Your task to perform on an android device: Search for usb-c to usb-b on costco, select the first entry, and add it to the cart. Image 0: 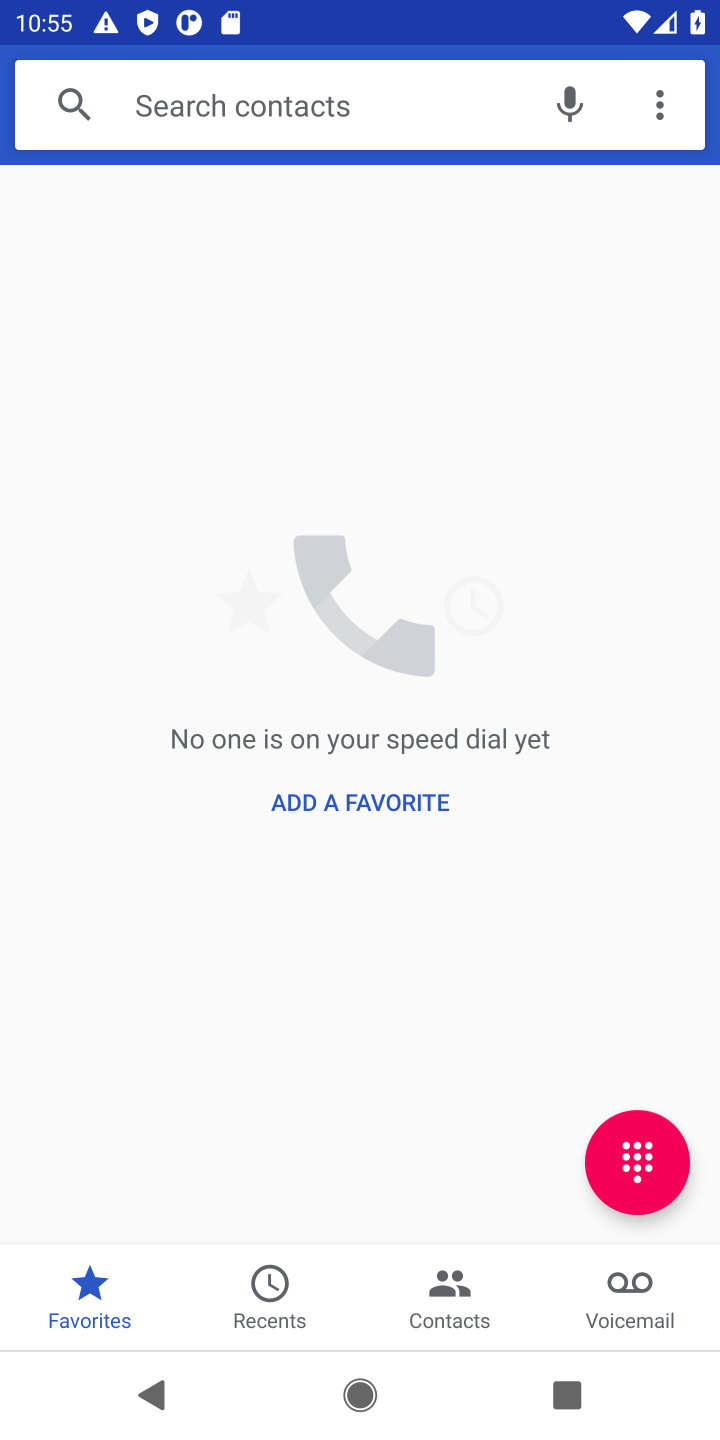
Step 0: press home button
Your task to perform on an android device: Search for usb-c to usb-b on costco, select the first entry, and add it to the cart. Image 1: 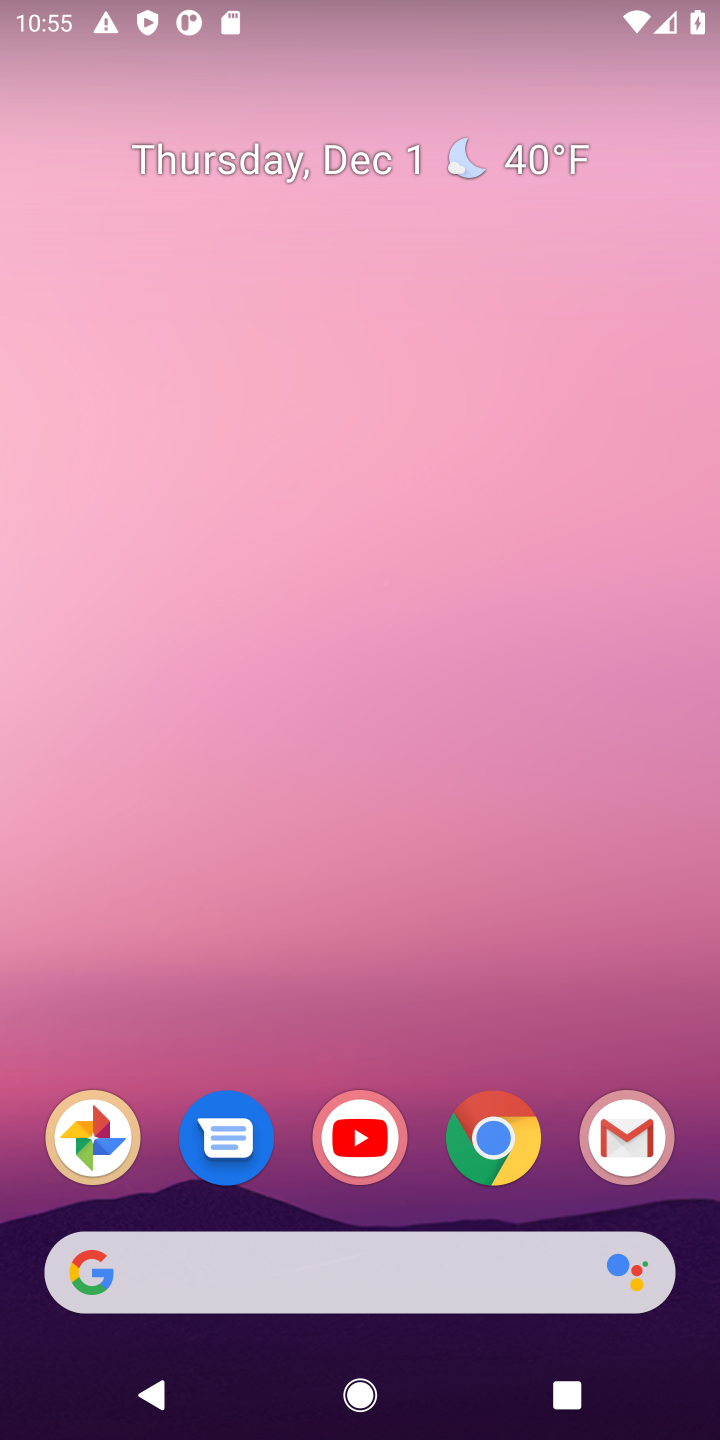
Step 1: drag from (373, 1118) to (504, 696)
Your task to perform on an android device: Search for usb-c to usb-b on costco, select the first entry, and add it to the cart. Image 2: 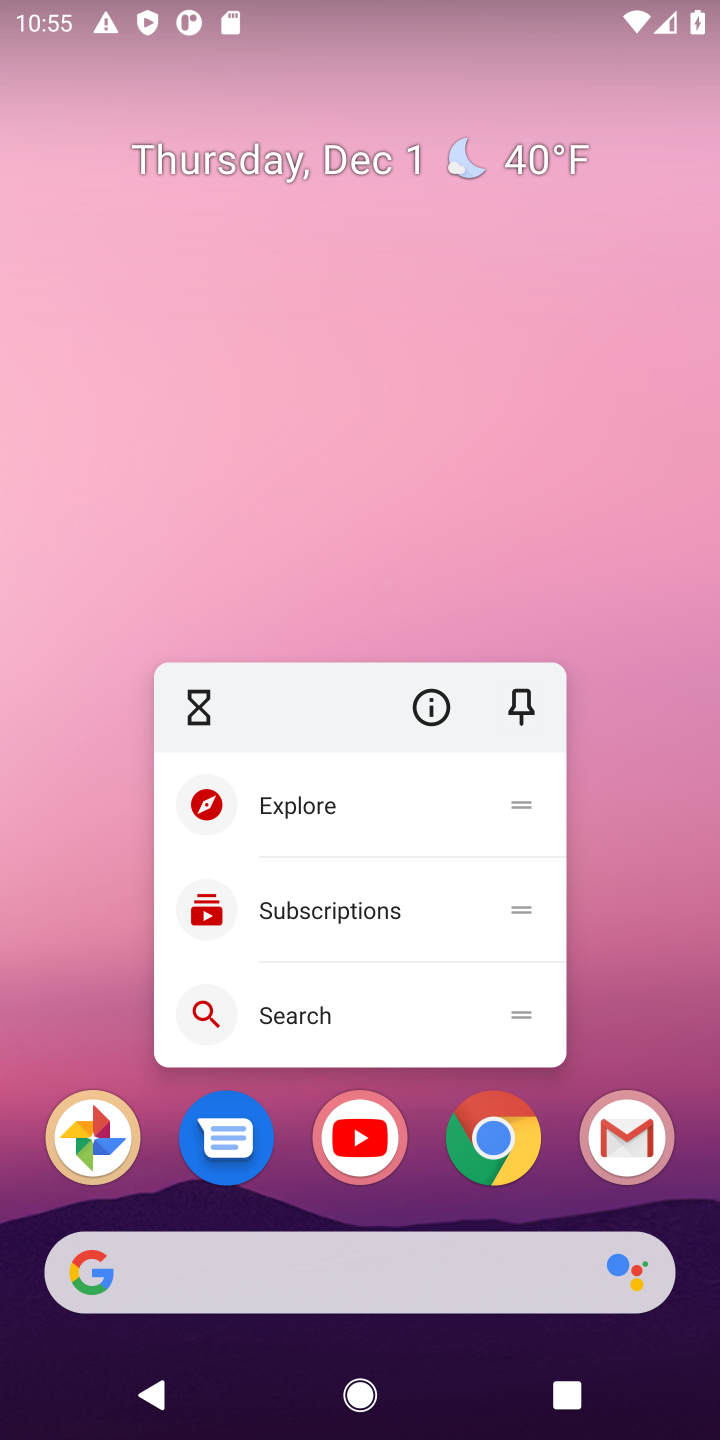
Step 2: click (662, 843)
Your task to perform on an android device: Search for usb-c to usb-b on costco, select the first entry, and add it to the cart. Image 3: 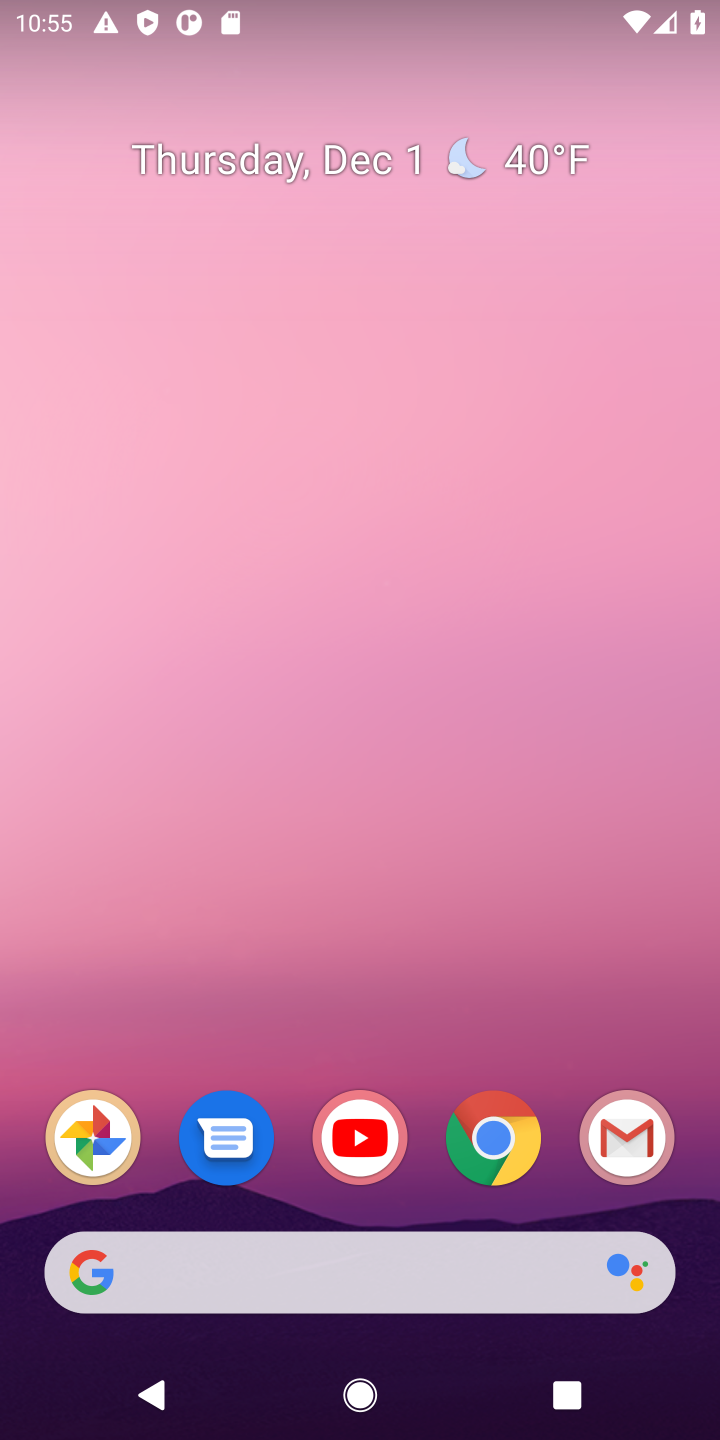
Step 3: drag from (465, 1243) to (703, 87)
Your task to perform on an android device: Search for usb-c to usb-b on costco, select the first entry, and add it to the cart. Image 4: 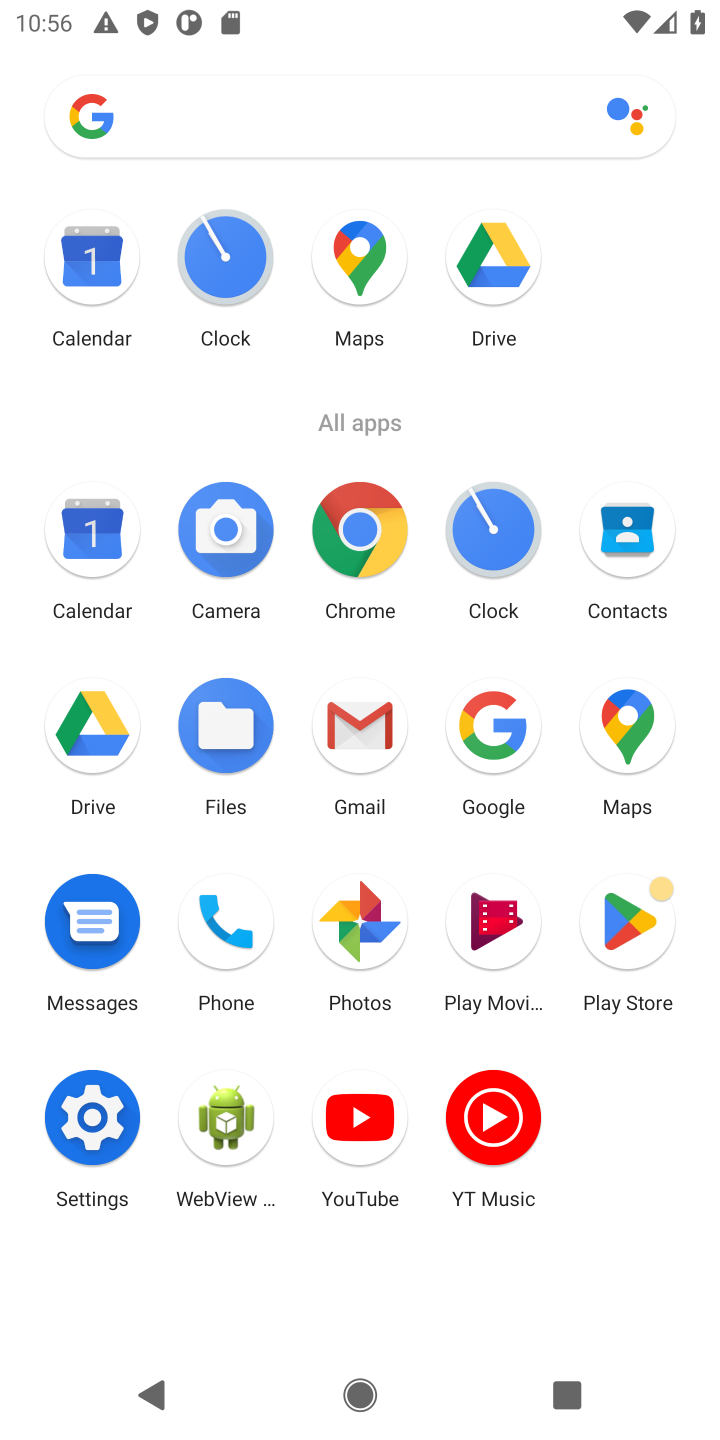
Step 4: click (489, 736)
Your task to perform on an android device: Search for usb-c to usb-b on costco, select the first entry, and add it to the cart. Image 5: 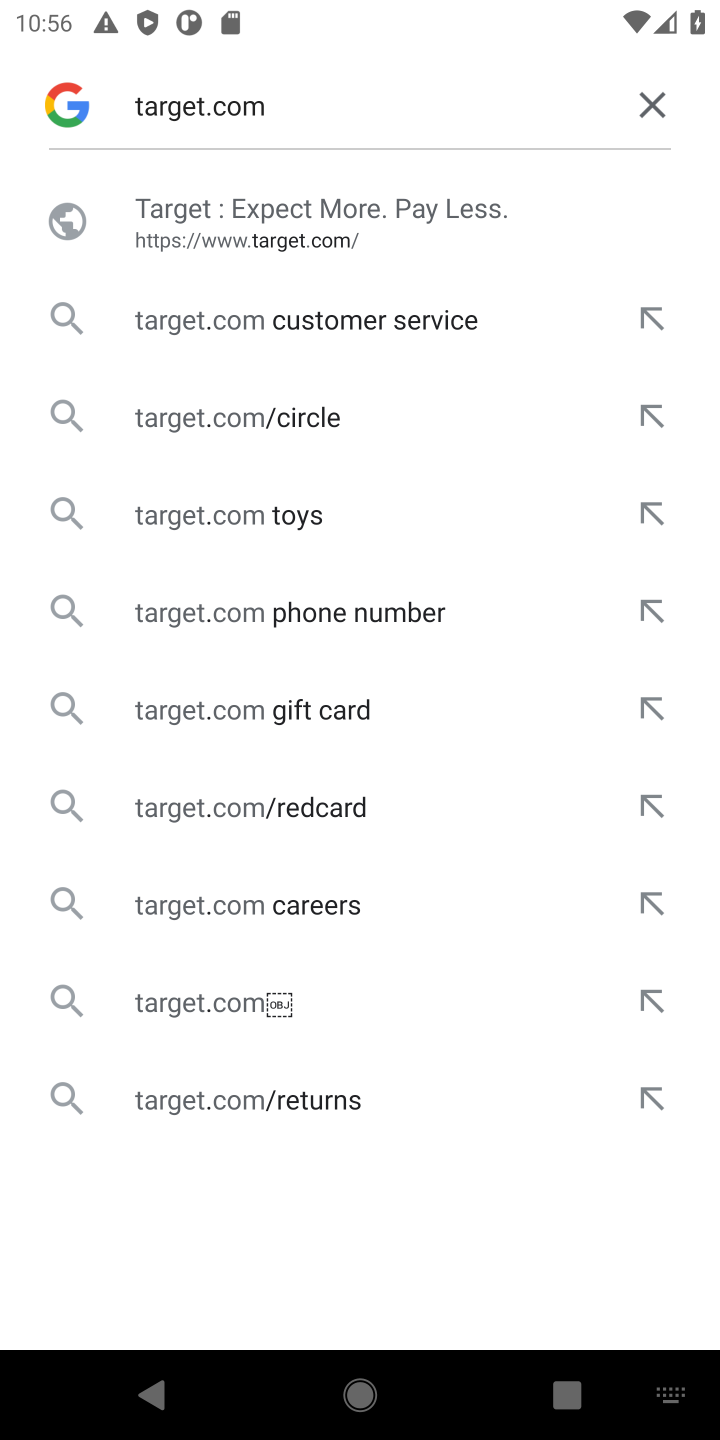
Step 5: click (436, 204)
Your task to perform on an android device: Search for usb-c to usb-b on costco, select the first entry, and add it to the cart. Image 6: 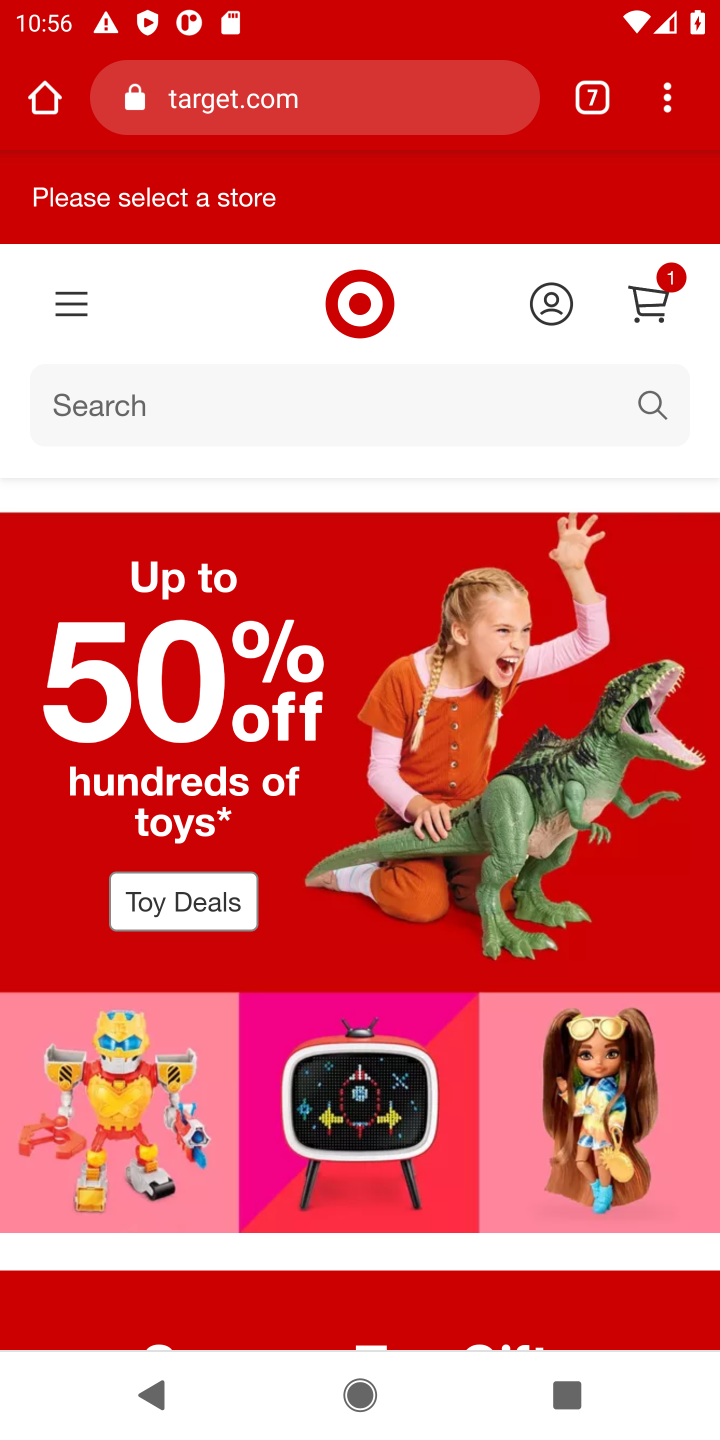
Step 6: click (433, 424)
Your task to perform on an android device: Search for usb-c to usb-b on costco, select the first entry, and add it to the cart. Image 7: 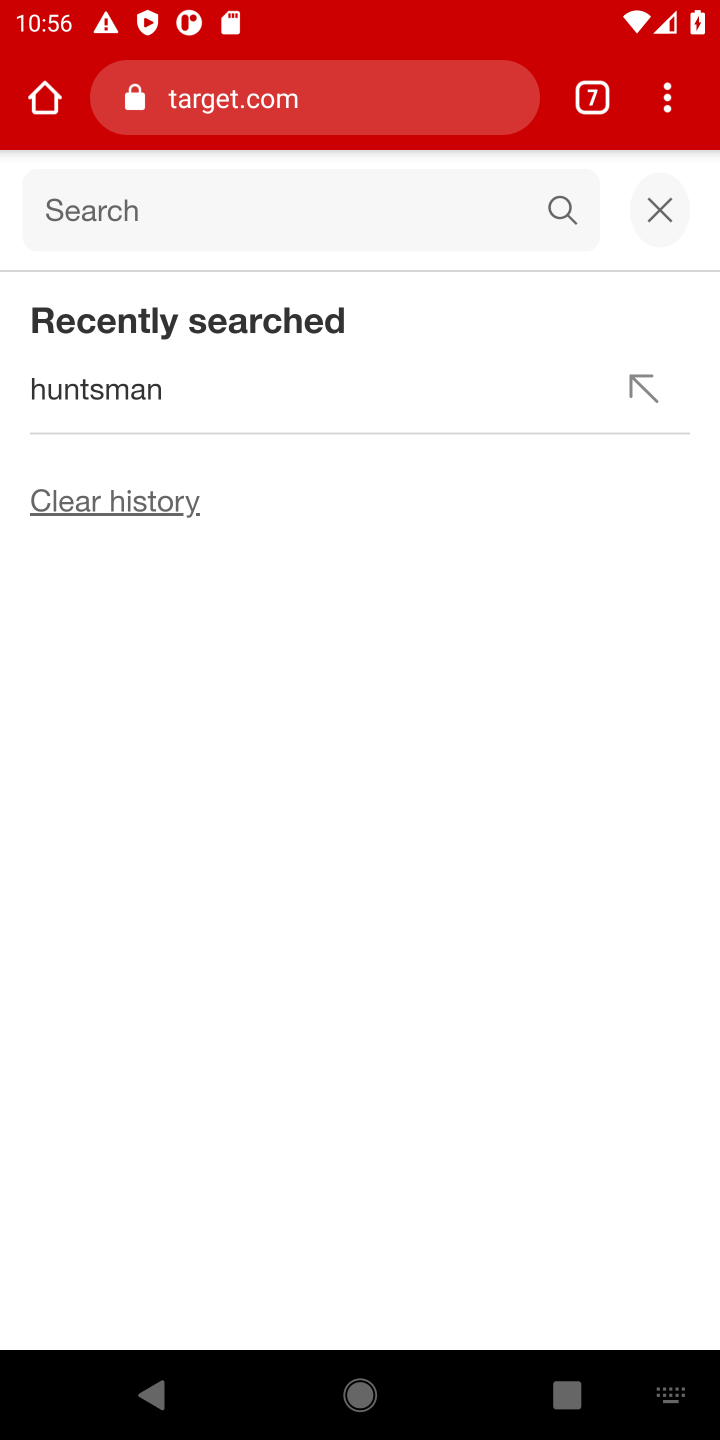
Step 7: type "usb-c to usb-b"
Your task to perform on an android device: Search for usb-c to usb-b on costco, select the first entry, and add it to the cart. Image 8: 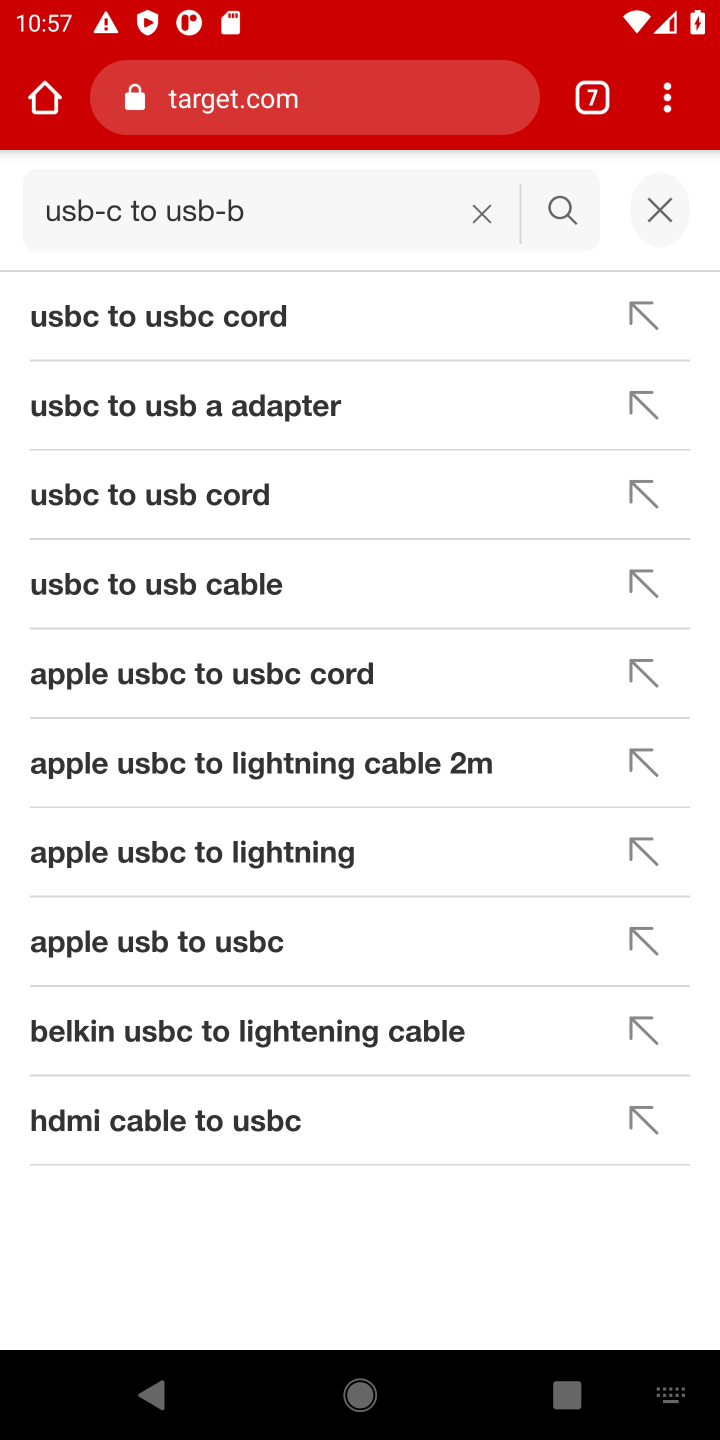
Step 8: click (561, 218)
Your task to perform on an android device: Search for usb-c to usb-b on costco, select the first entry, and add it to the cart. Image 9: 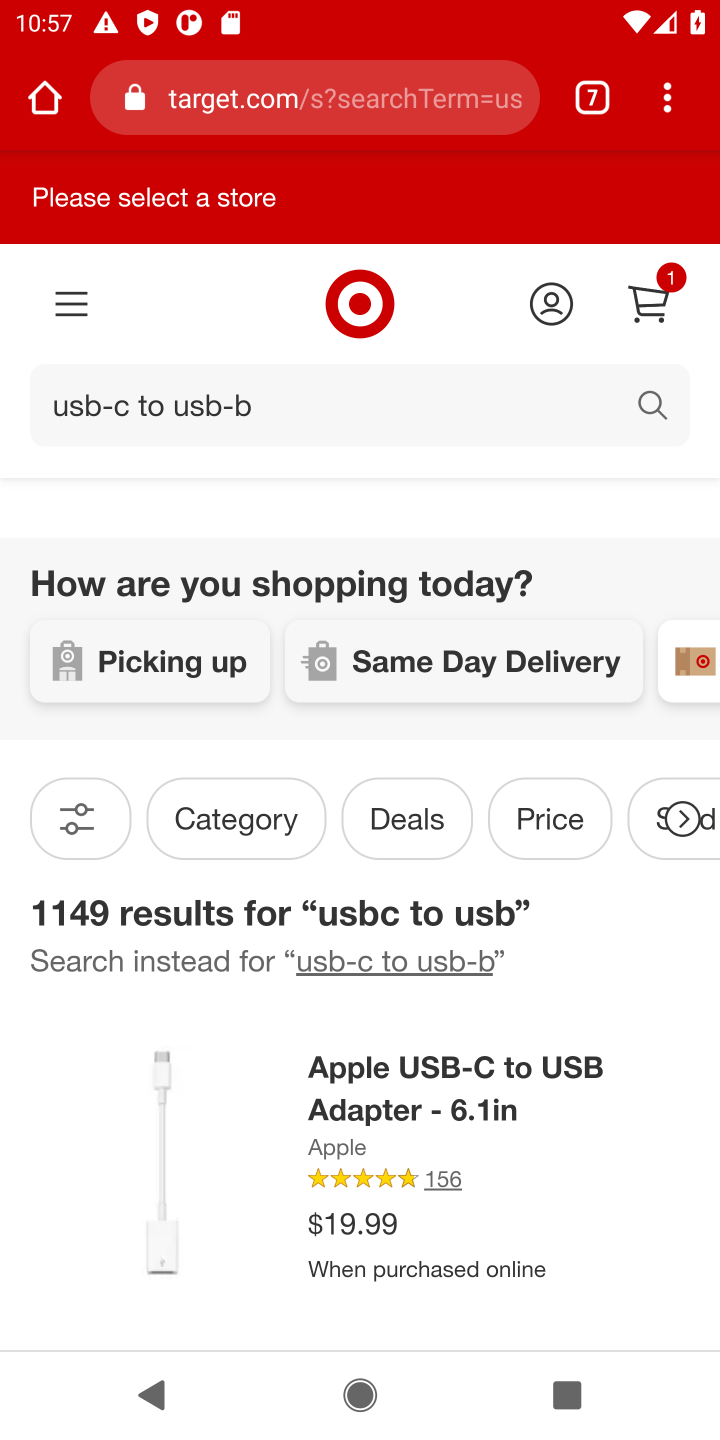
Step 9: click (156, 1170)
Your task to perform on an android device: Search for usb-c to usb-b on costco, select the first entry, and add it to the cart. Image 10: 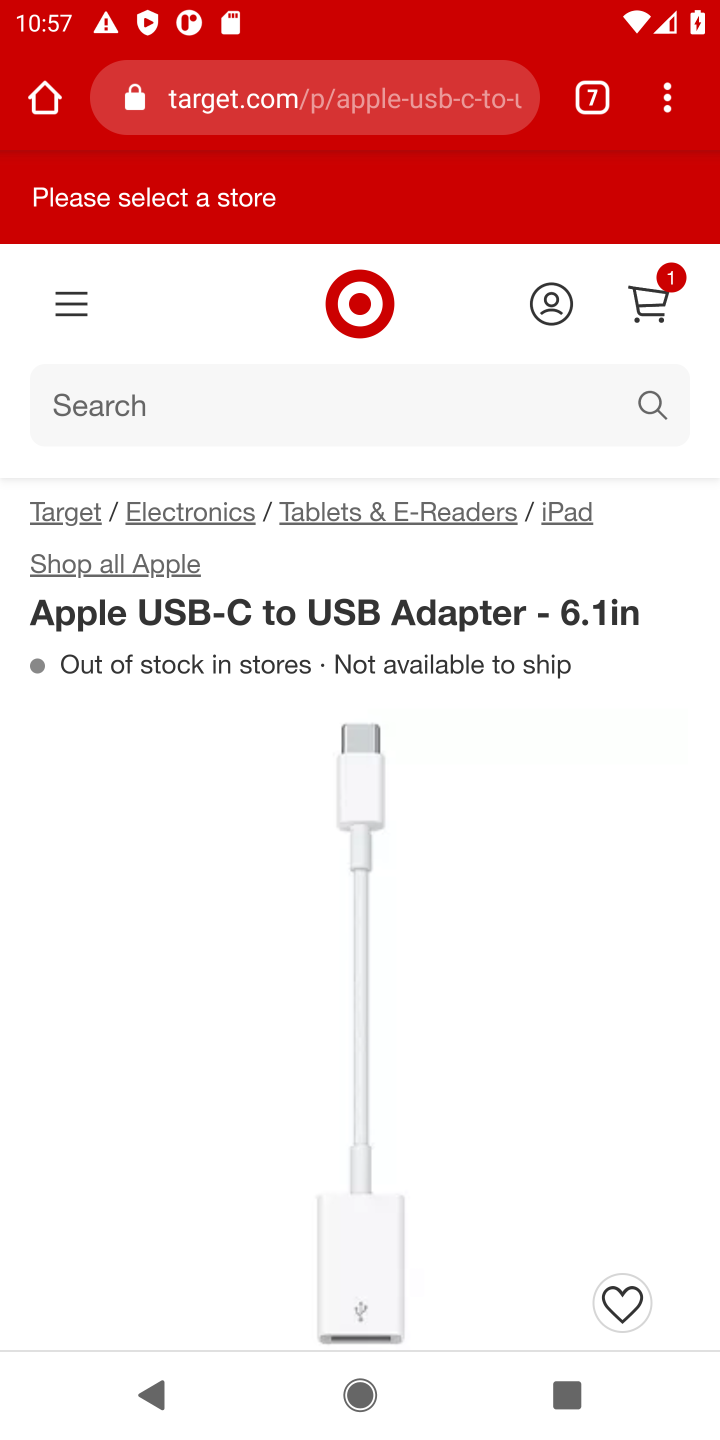
Step 10: drag from (425, 1150) to (410, 708)
Your task to perform on an android device: Search for usb-c to usb-b on costco, select the first entry, and add it to the cart. Image 11: 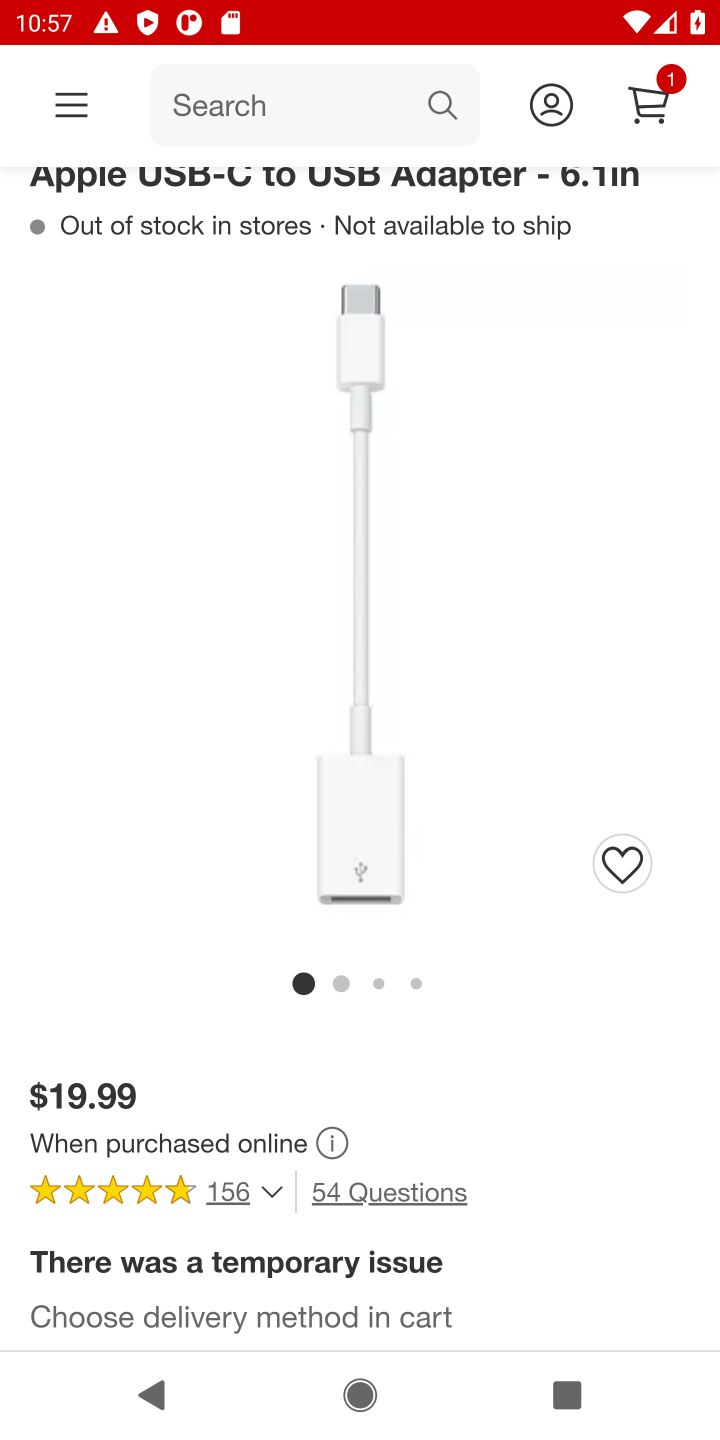
Step 11: drag from (410, 1087) to (416, 726)
Your task to perform on an android device: Search for usb-c to usb-b on costco, select the first entry, and add it to the cart. Image 12: 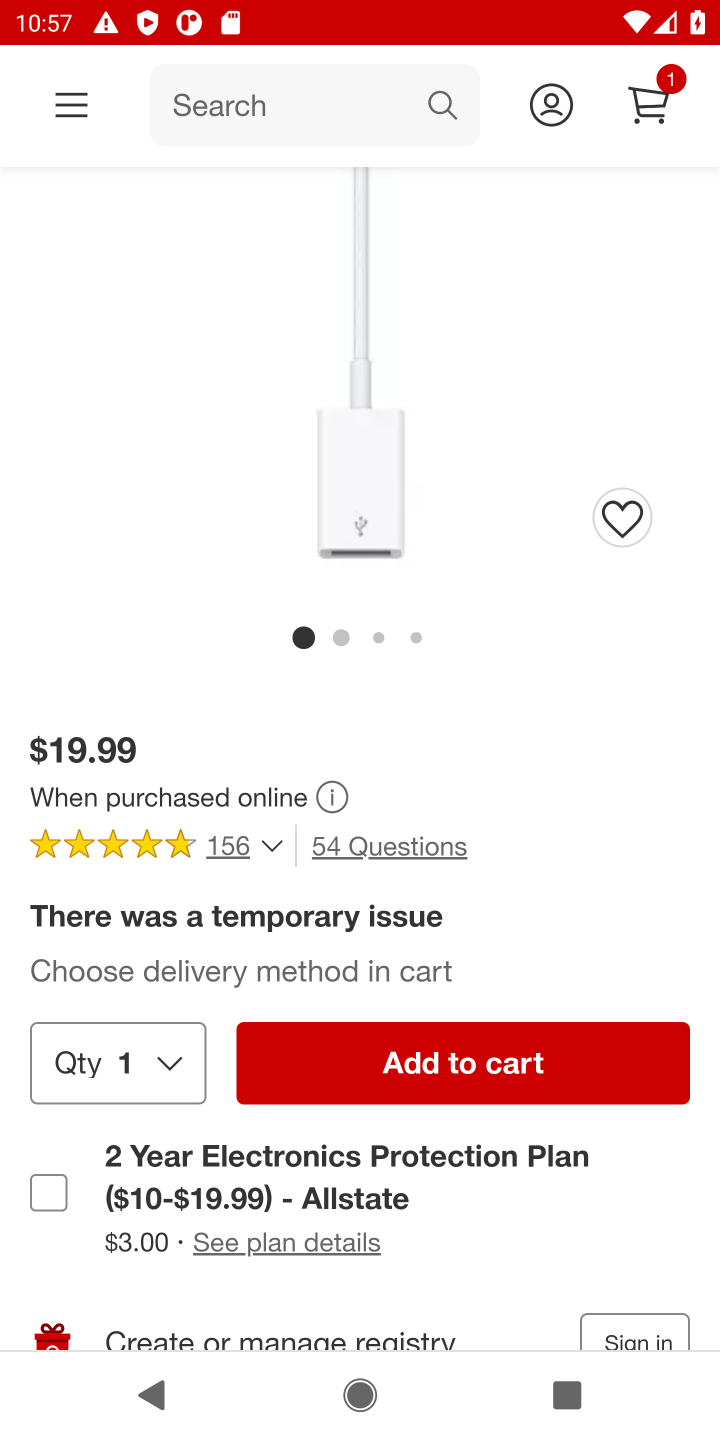
Step 12: click (410, 1061)
Your task to perform on an android device: Search for usb-c to usb-b on costco, select the first entry, and add it to the cart. Image 13: 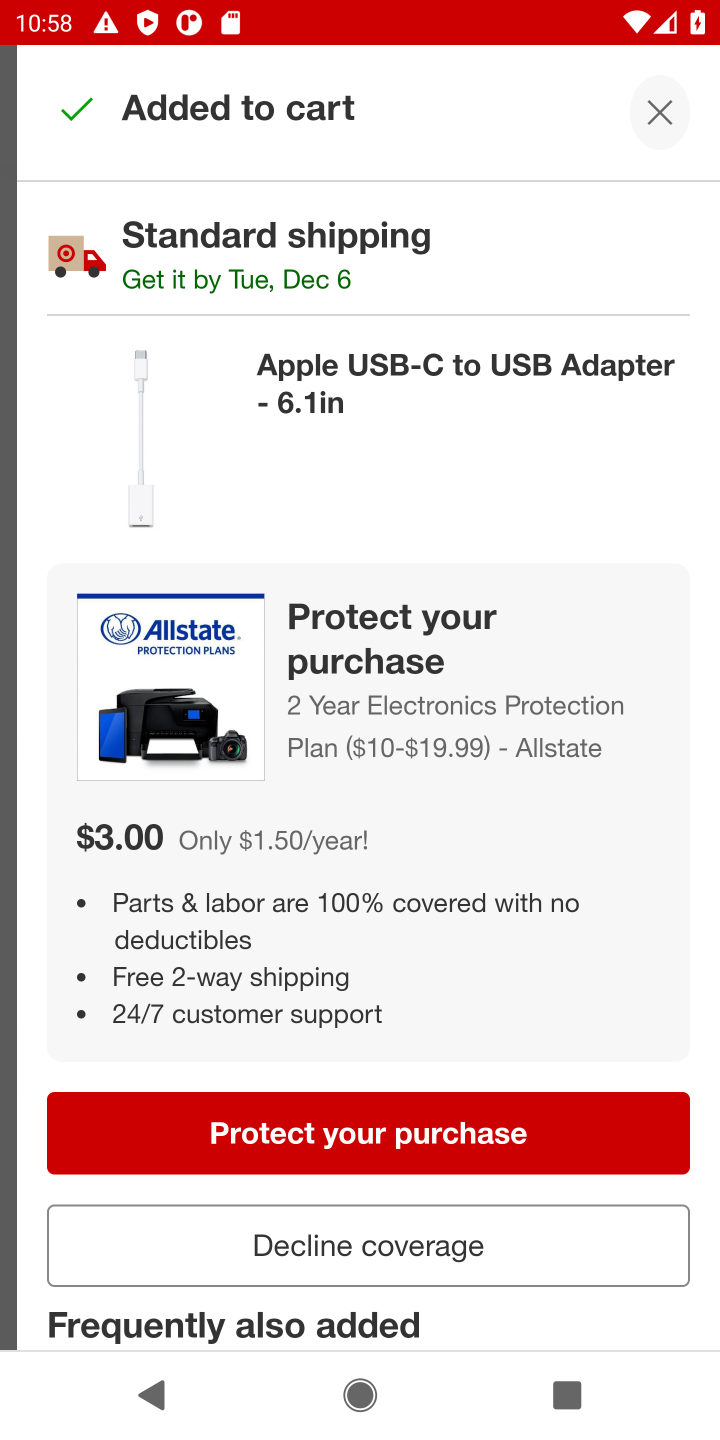
Step 13: task complete